Your task to perform on an android device: toggle location history Image 0: 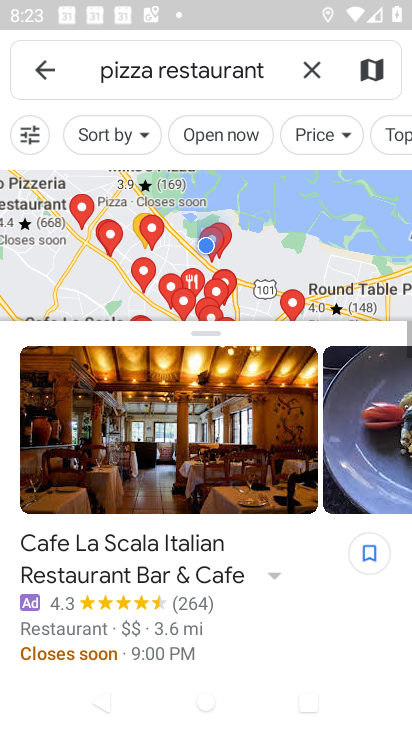
Step 0: press home button
Your task to perform on an android device: toggle location history Image 1: 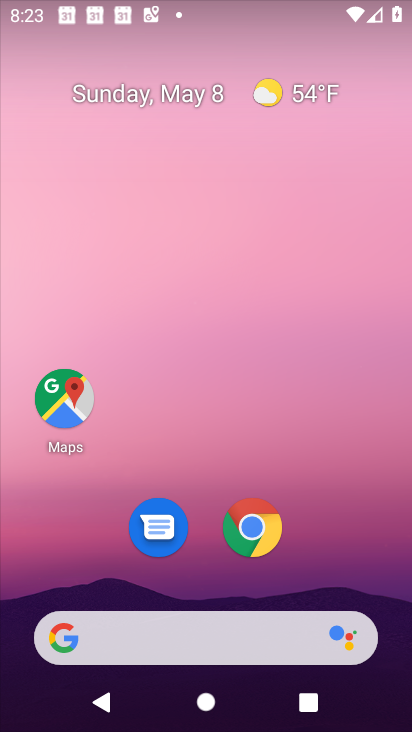
Step 1: drag from (325, 509) to (264, 50)
Your task to perform on an android device: toggle location history Image 2: 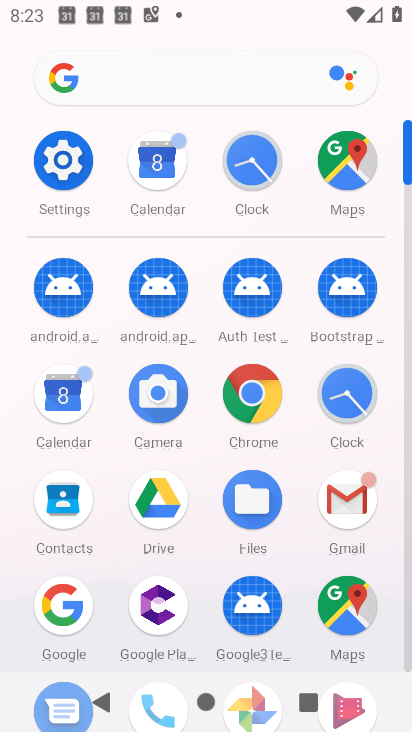
Step 2: click (66, 157)
Your task to perform on an android device: toggle location history Image 3: 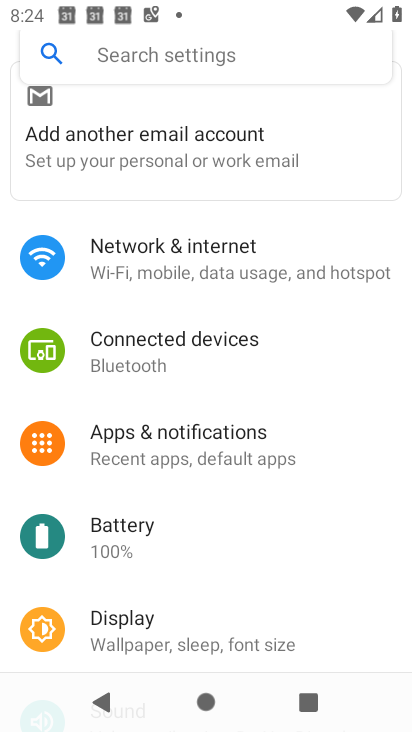
Step 3: drag from (179, 595) to (165, 463)
Your task to perform on an android device: toggle location history Image 4: 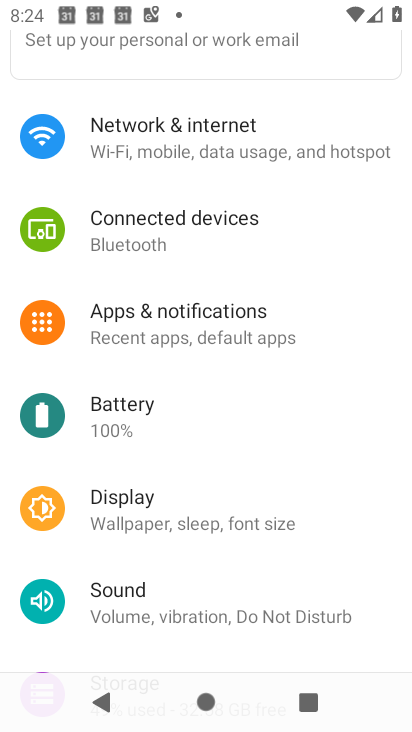
Step 4: drag from (184, 584) to (182, 430)
Your task to perform on an android device: toggle location history Image 5: 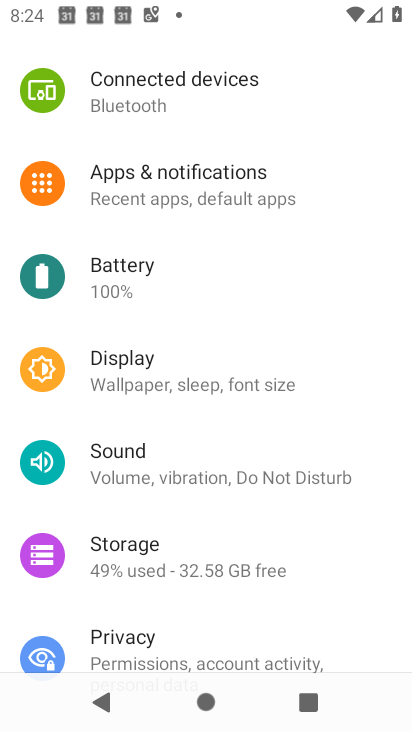
Step 5: drag from (200, 585) to (215, 355)
Your task to perform on an android device: toggle location history Image 6: 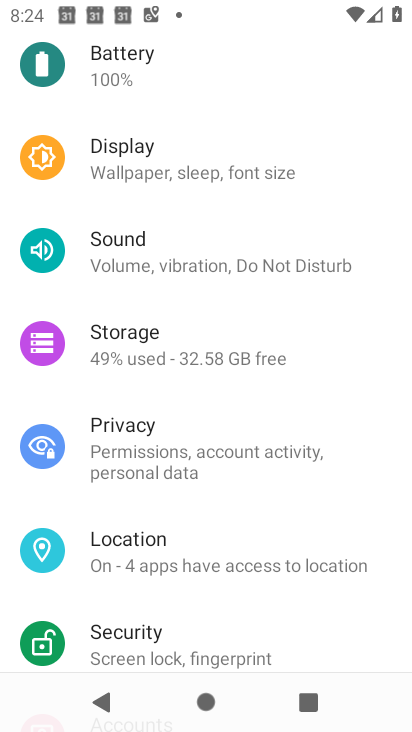
Step 6: click (182, 548)
Your task to perform on an android device: toggle location history Image 7: 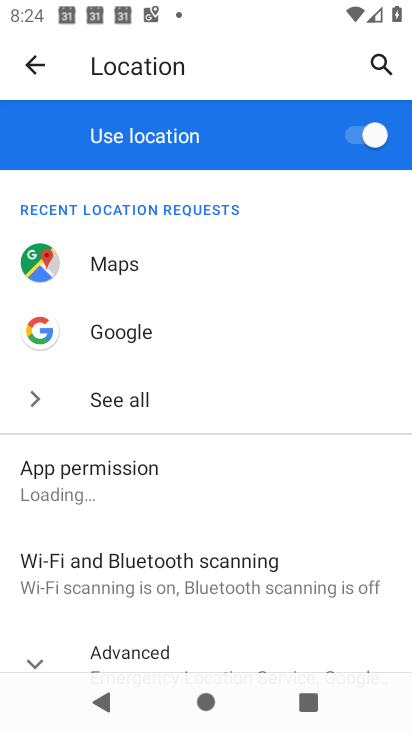
Step 7: drag from (194, 604) to (230, 415)
Your task to perform on an android device: toggle location history Image 8: 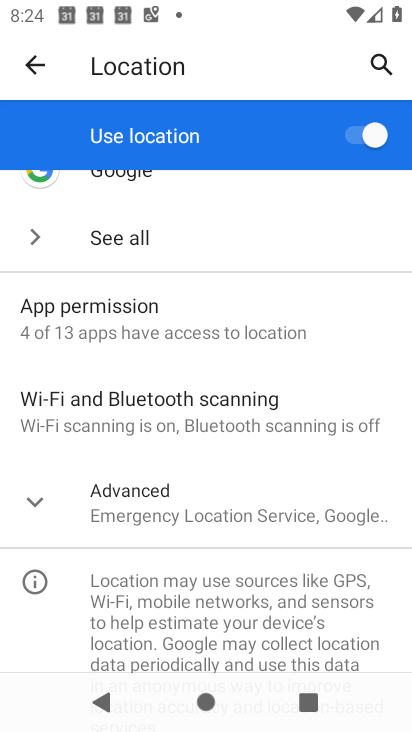
Step 8: click (216, 510)
Your task to perform on an android device: toggle location history Image 9: 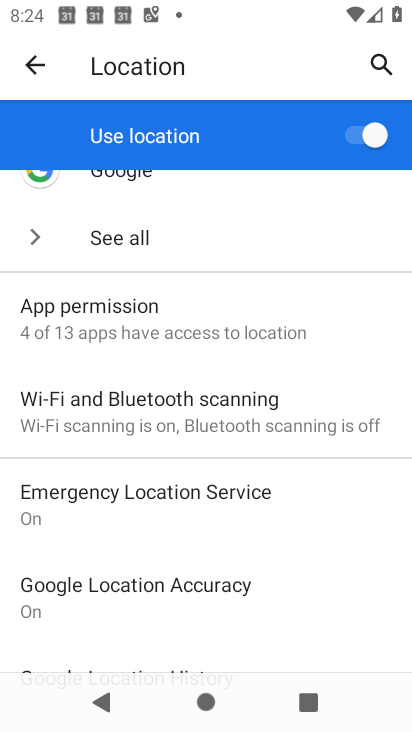
Step 9: drag from (187, 619) to (204, 445)
Your task to perform on an android device: toggle location history Image 10: 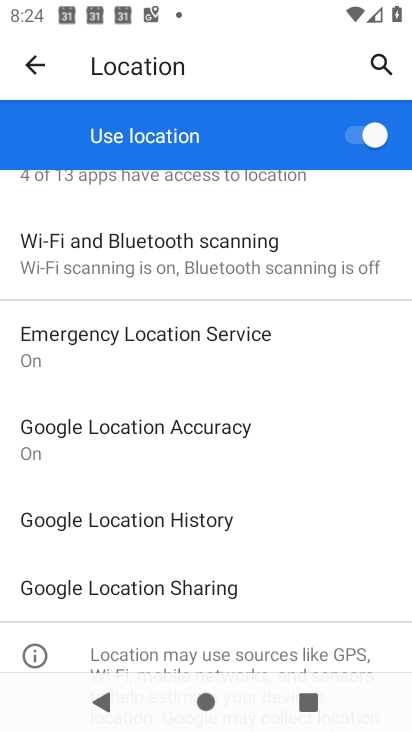
Step 10: click (191, 518)
Your task to perform on an android device: toggle location history Image 11: 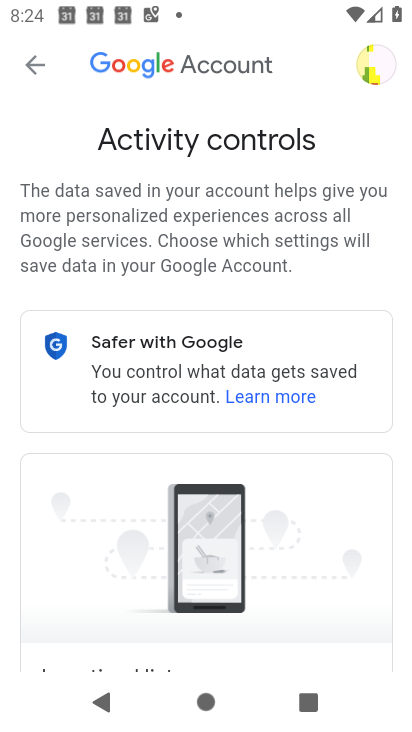
Step 11: drag from (295, 659) to (288, 329)
Your task to perform on an android device: toggle location history Image 12: 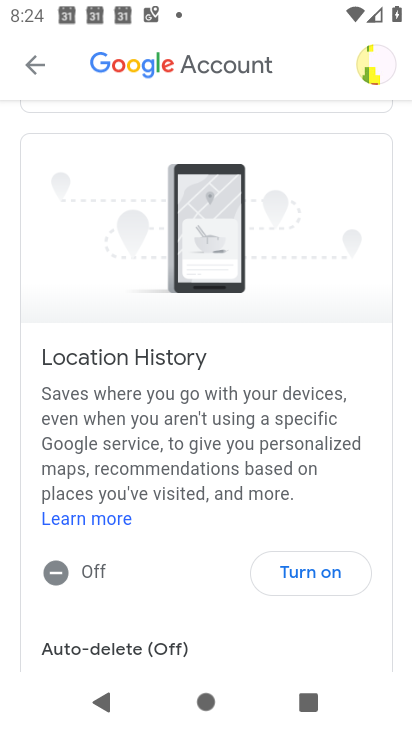
Step 12: click (299, 576)
Your task to perform on an android device: toggle location history Image 13: 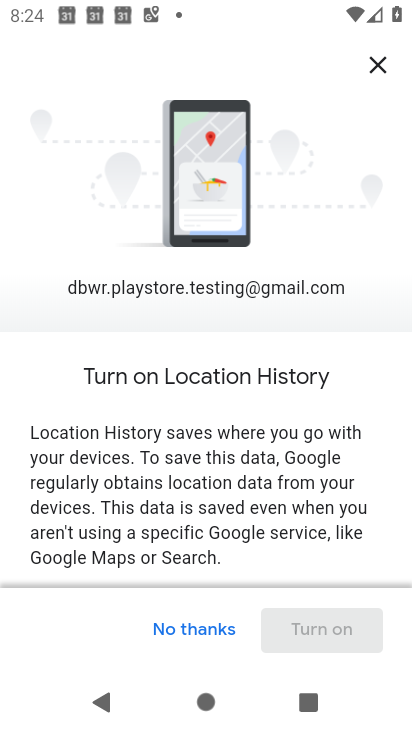
Step 13: drag from (269, 561) to (271, 335)
Your task to perform on an android device: toggle location history Image 14: 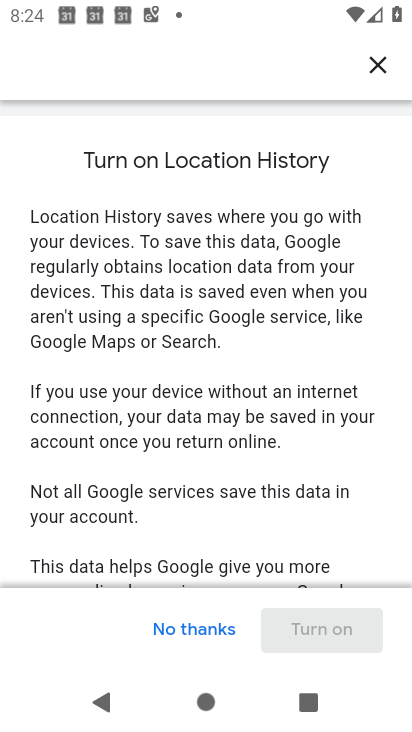
Step 14: drag from (290, 546) to (297, 310)
Your task to perform on an android device: toggle location history Image 15: 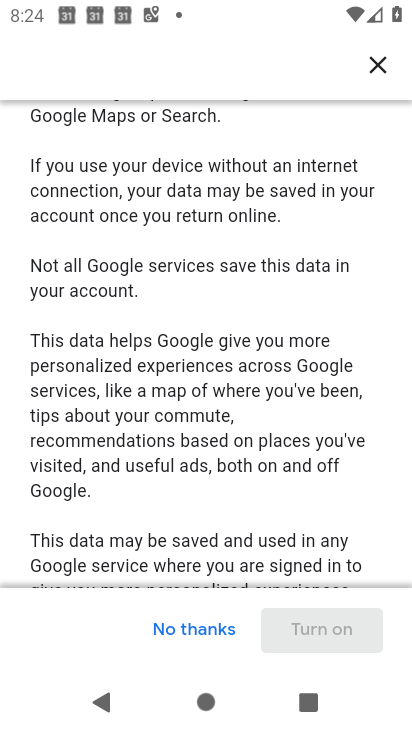
Step 15: drag from (341, 553) to (350, 330)
Your task to perform on an android device: toggle location history Image 16: 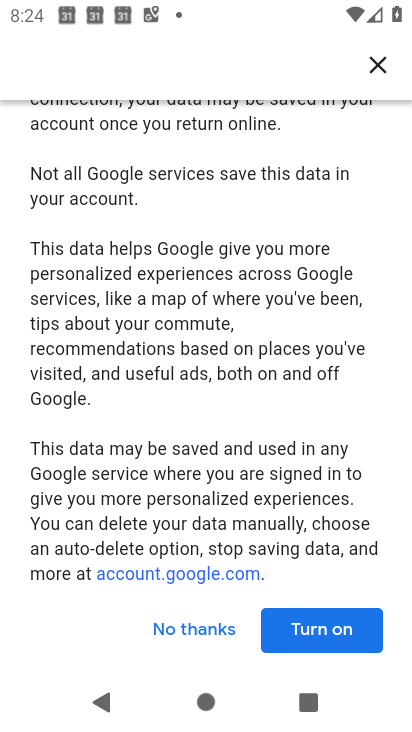
Step 16: click (286, 624)
Your task to perform on an android device: toggle location history Image 17: 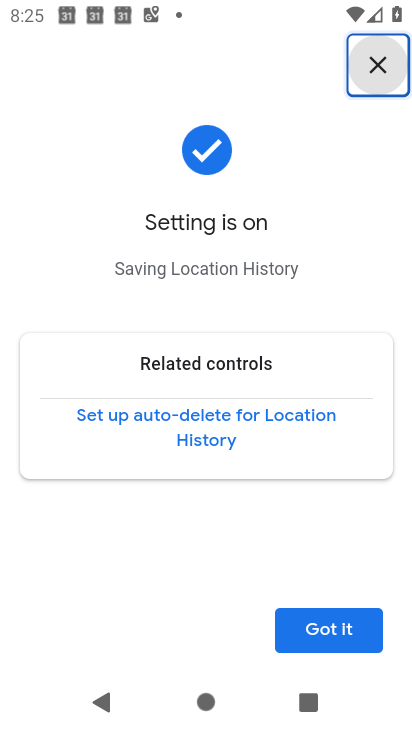
Step 17: task complete